Your task to perform on an android device: Open calendar and show me the third week of next month Image 0: 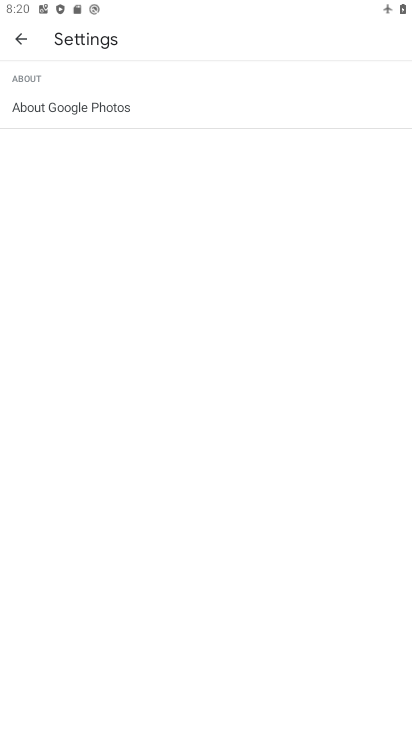
Step 0: drag from (236, 551) to (239, 421)
Your task to perform on an android device: Open calendar and show me the third week of next month Image 1: 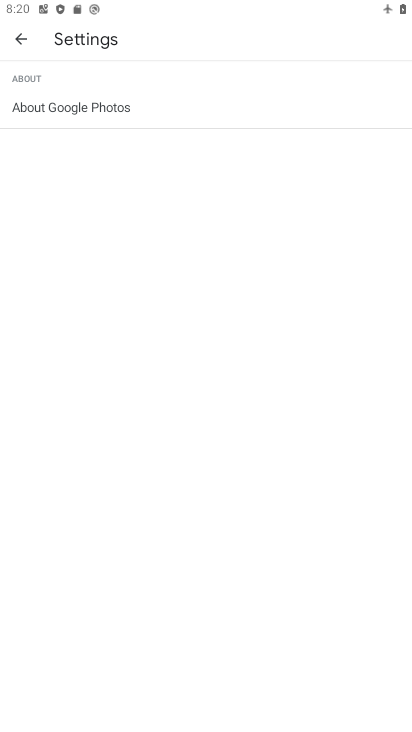
Step 1: press home button
Your task to perform on an android device: Open calendar and show me the third week of next month Image 2: 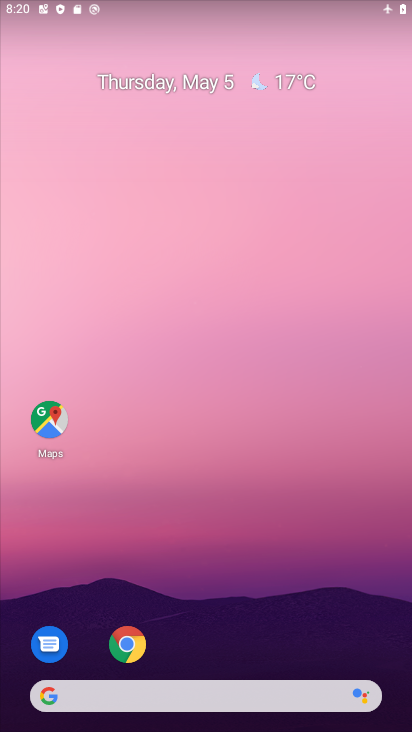
Step 2: drag from (232, 550) to (286, 203)
Your task to perform on an android device: Open calendar and show me the third week of next month Image 3: 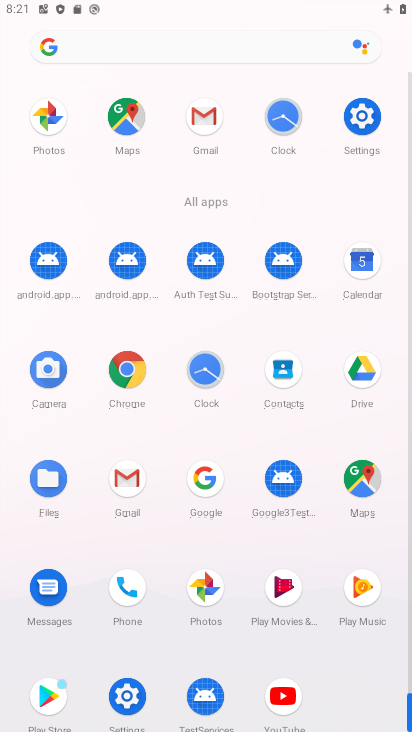
Step 3: drag from (244, 568) to (239, 252)
Your task to perform on an android device: Open calendar and show me the third week of next month Image 4: 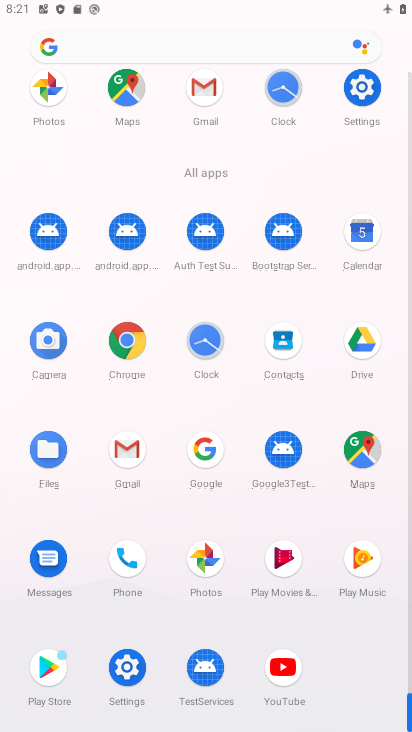
Step 4: click (359, 251)
Your task to perform on an android device: Open calendar and show me the third week of next month Image 5: 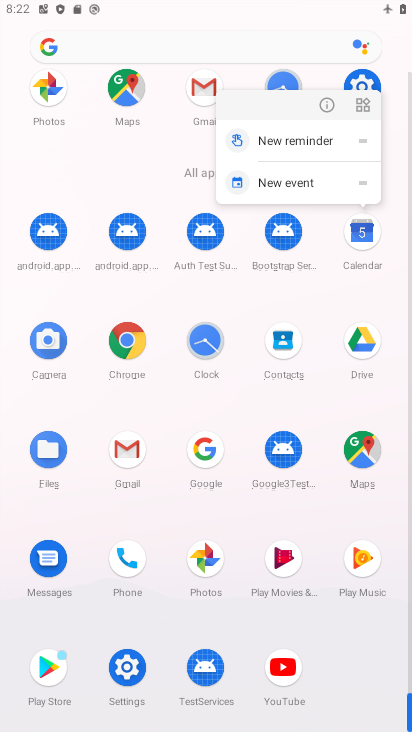
Step 5: click (321, 105)
Your task to perform on an android device: Open calendar and show me the third week of next month Image 6: 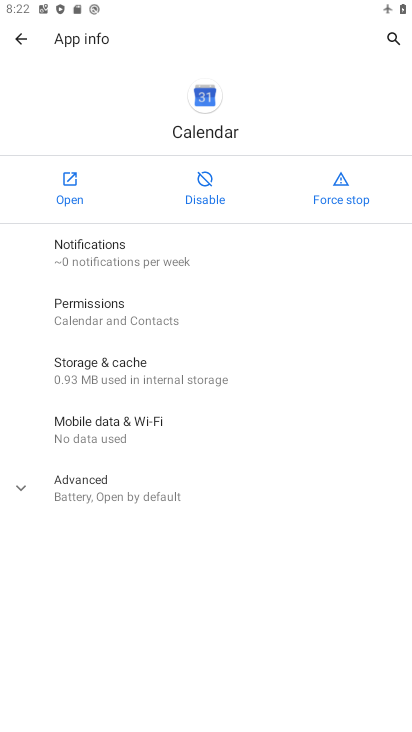
Step 6: click (72, 183)
Your task to perform on an android device: Open calendar and show me the third week of next month Image 7: 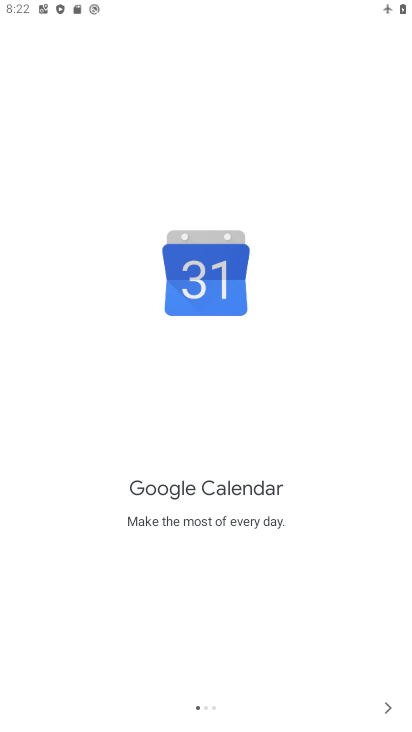
Step 7: drag from (201, 524) to (235, 222)
Your task to perform on an android device: Open calendar and show me the third week of next month Image 8: 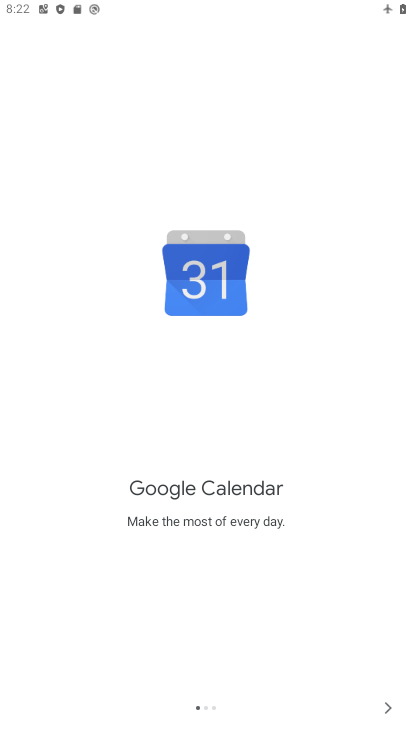
Step 8: click (371, 709)
Your task to perform on an android device: Open calendar and show me the third week of next month Image 9: 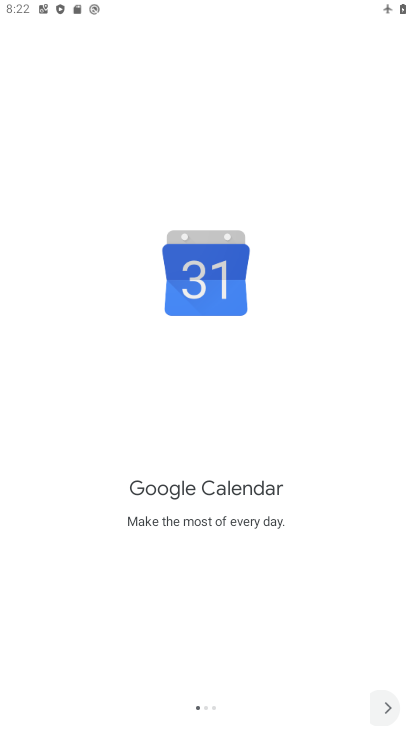
Step 9: click (376, 709)
Your task to perform on an android device: Open calendar and show me the third week of next month Image 10: 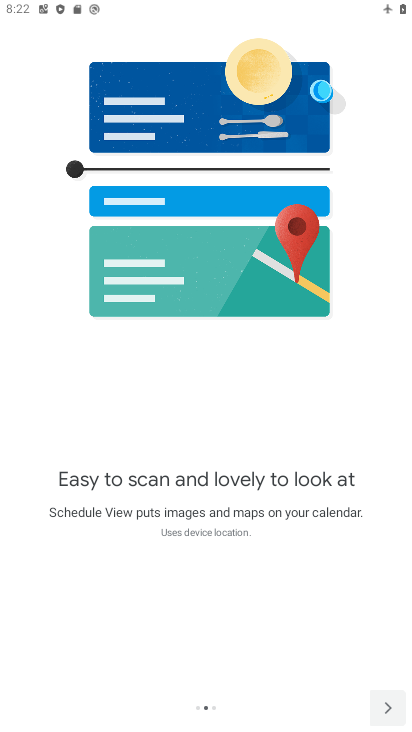
Step 10: click (376, 708)
Your task to perform on an android device: Open calendar and show me the third week of next month Image 11: 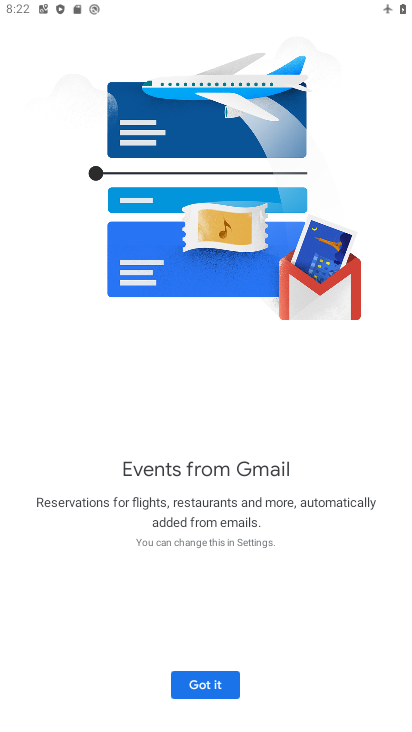
Step 11: click (228, 678)
Your task to perform on an android device: Open calendar and show me the third week of next month Image 12: 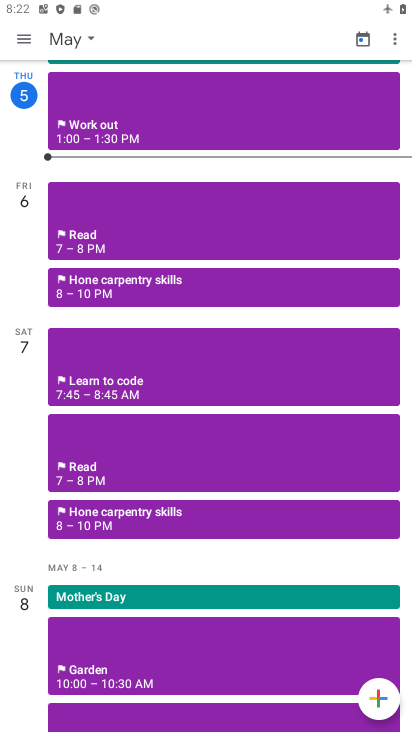
Step 12: click (22, 41)
Your task to perform on an android device: Open calendar and show me the third week of next month Image 13: 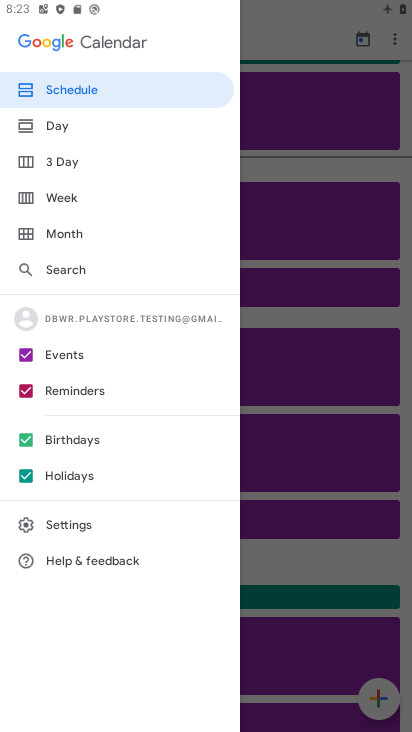
Step 13: click (89, 194)
Your task to perform on an android device: Open calendar and show me the third week of next month Image 14: 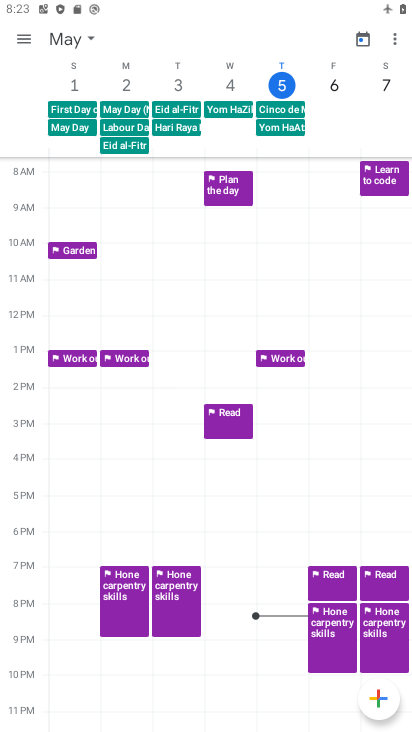
Step 14: drag from (338, 92) to (12, 53)
Your task to perform on an android device: Open calendar and show me the third week of next month Image 15: 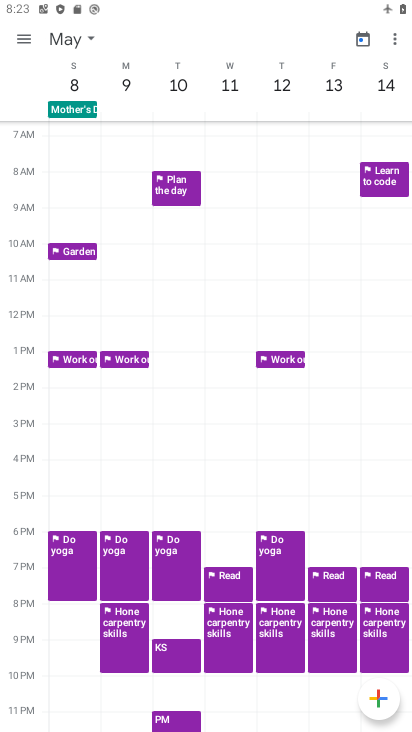
Step 15: drag from (326, 97) to (0, 27)
Your task to perform on an android device: Open calendar and show me the third week of next month Image 16: 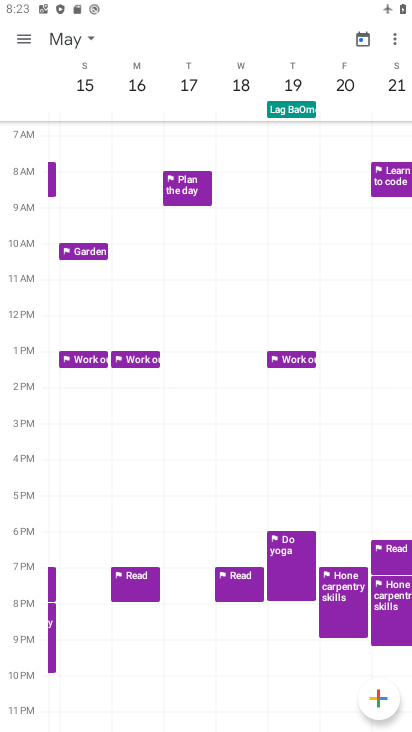
Step 16: click (78, 27)
Your task to perform on an android device: Open calendar and show me the third week of next month Image 17: 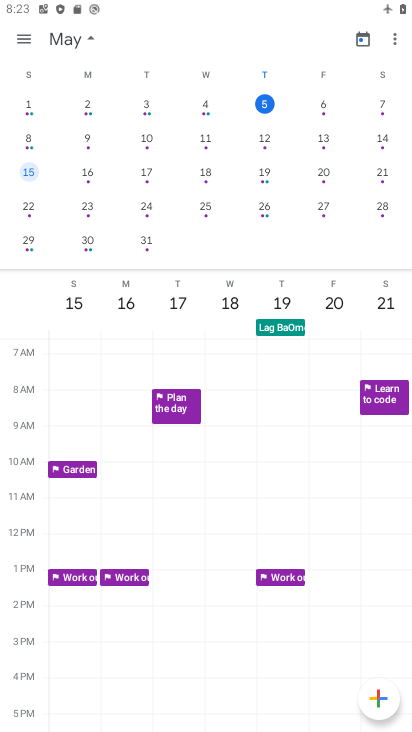
Step 17: drag from (338, 184) to (0, 88)
Your task to perform on an android device: Open calendar and show me the third week of next month Image 18: 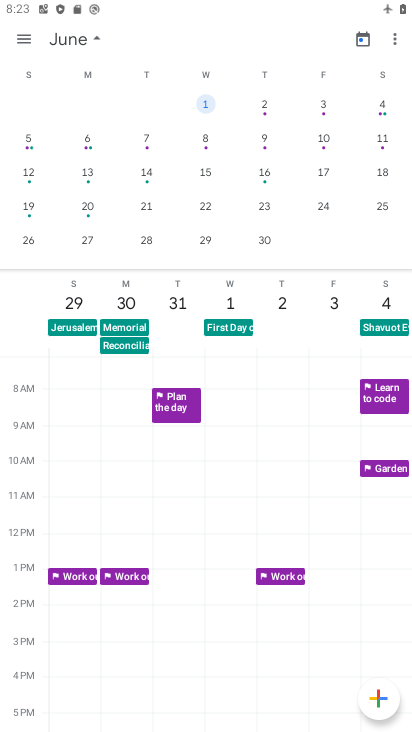
Step 18: click (263, 174)
Your task to perform on an android device: Open calendar and show me the third week of next month Image 19: 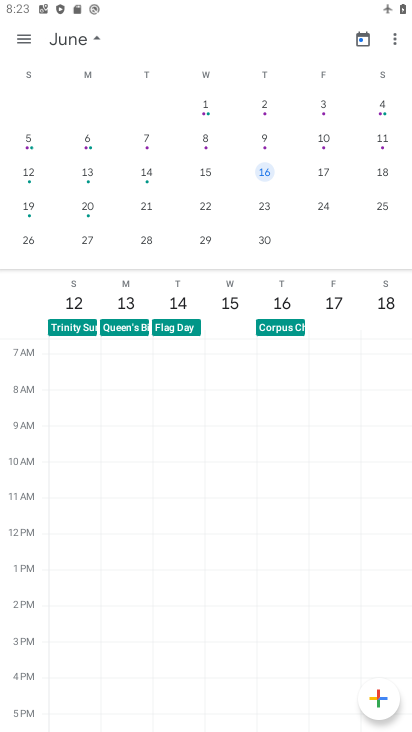
Step 19: task complete